Your task to perform on an android device: Search for seafood restaurants on Google Maps Image 0: 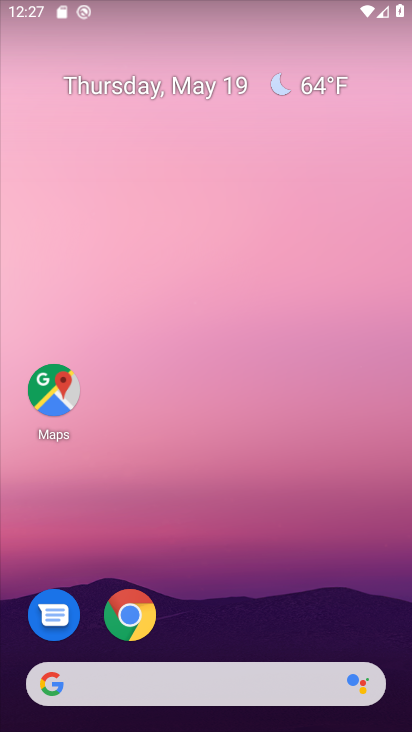
Step 0: drag from (210, 688) to (233, 231)
Your task to perform on an android device: Search for seafood restaurants on Google Maps Image 1: 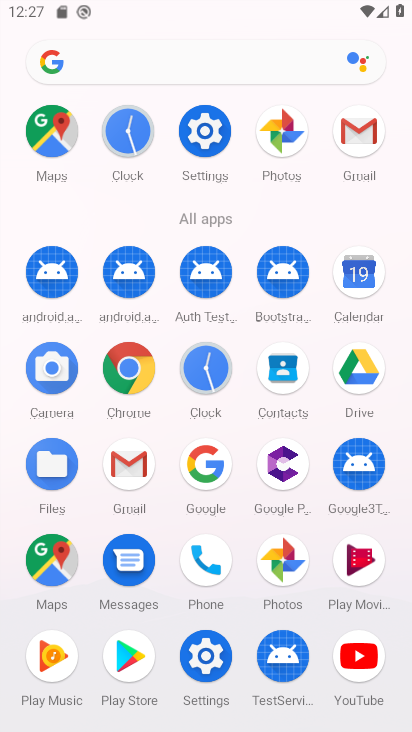
Step 1: click (54, 535)
Your task to perform on an android device: Search for seafood restaurants on Google Maps Image 2: 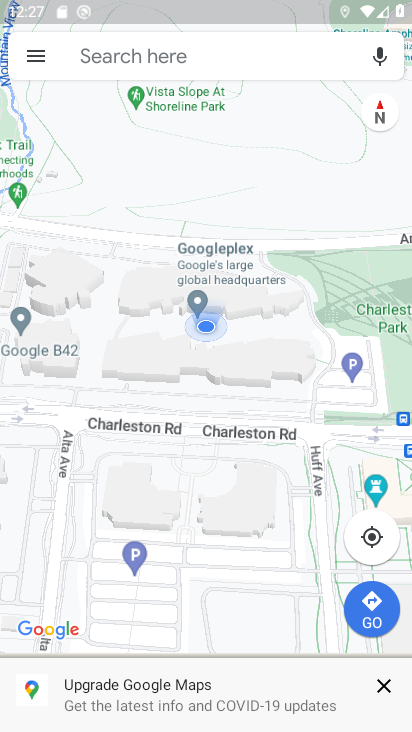
Step 2: click (160, 55)
Your task to perform on an android device: Search for seafood restaurants on Google Maps Image 3: 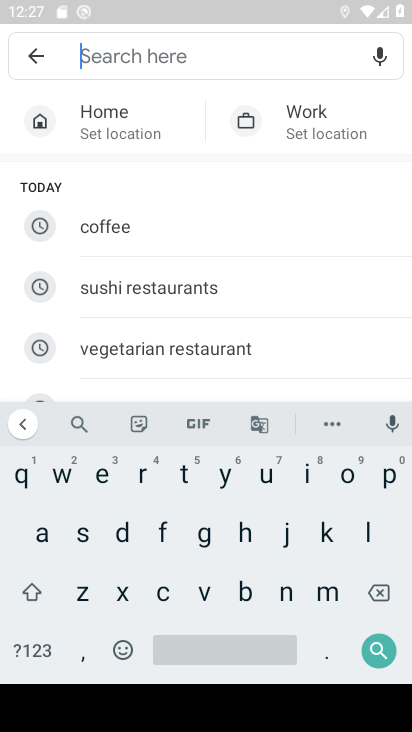
Step 3: click (75, 531)
Your task to perform on an android device: Search for seafood restaurants on Google Maps Image 4: 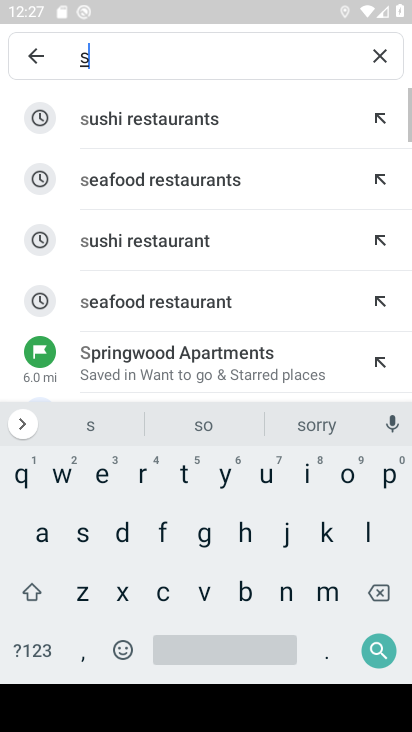
Step 4: click (140, 184)
Your task to perform on an android device: Search for seafood restaurants on Google Maps Image 5: 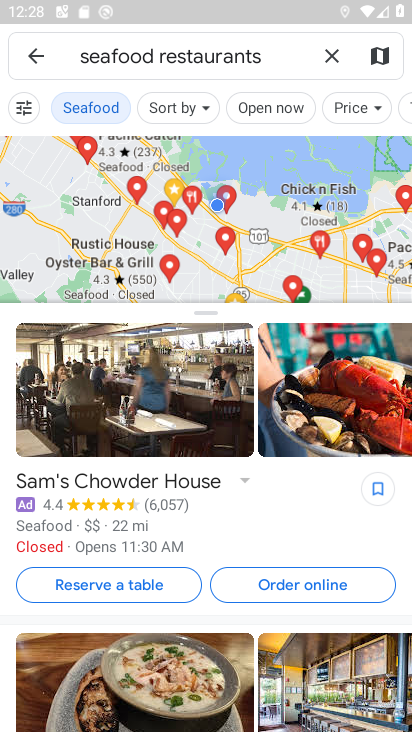
Step 5: click (200, 173)
Your task to perform on an android device: Search for seafood restaurants on Google Maps Image 6: 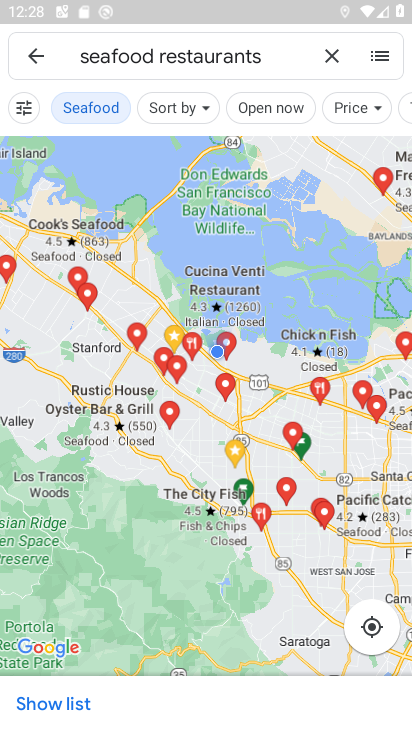
Step 6: task complete